Your task to perform on an android device: What's the news in Vietnam? Image 0: 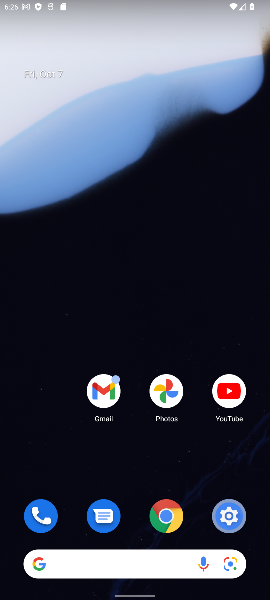
Step 0: drag from (133, 534) to (137, 36)
Your task to perform on an android device: What's the news in Vietnam? Image 1: 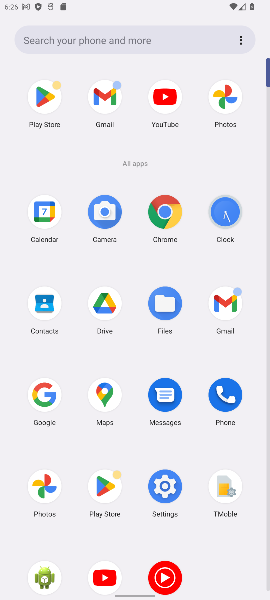
Step 1: click (112, 102)
Your task to perform on an android device: What's the news in Vietnam? Image 2: 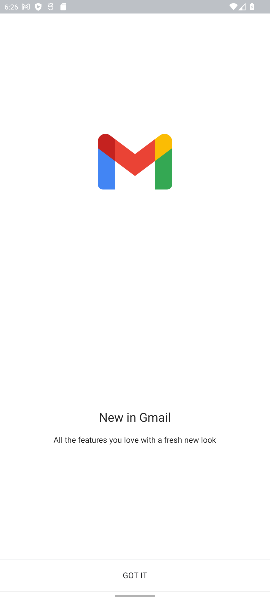
Step 2: press home button
Your task to perform on an android device: What's the news in Vietnam? Image 3: 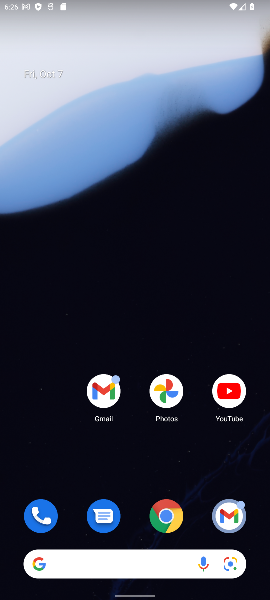
Step 3: click (120, 555)
Your task to perform on an android device: What's the news in Vietnam? Image 4: 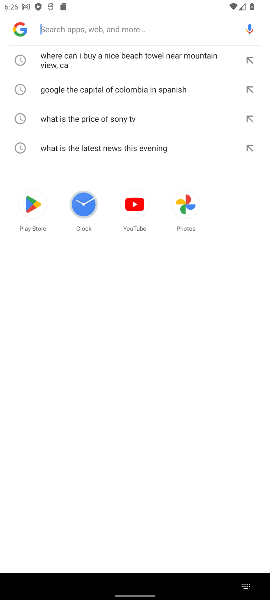
Step 4: type "What's the news in Vietnam?"
Your task to perform on an android device: What's the news in Vietnam? Image 5: 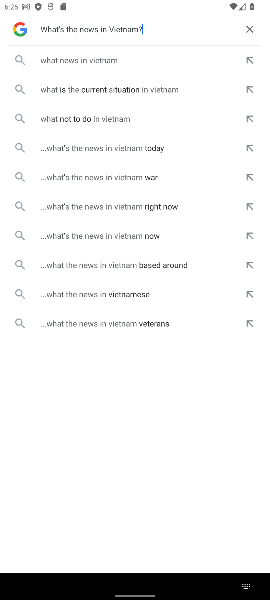
Step 5: click (92, 57)
Your task to perform on an android device: What's the news in Vietnam? Image 6: 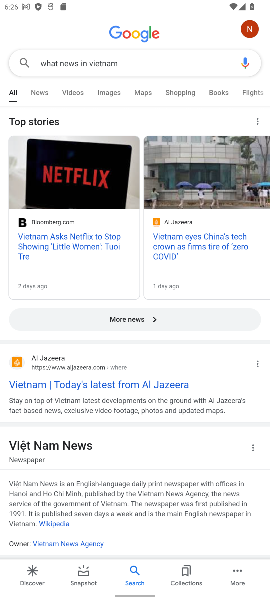
Step 6: task complete